Your task to perform on an android device: turn pop-ups on in chrome Image 0: 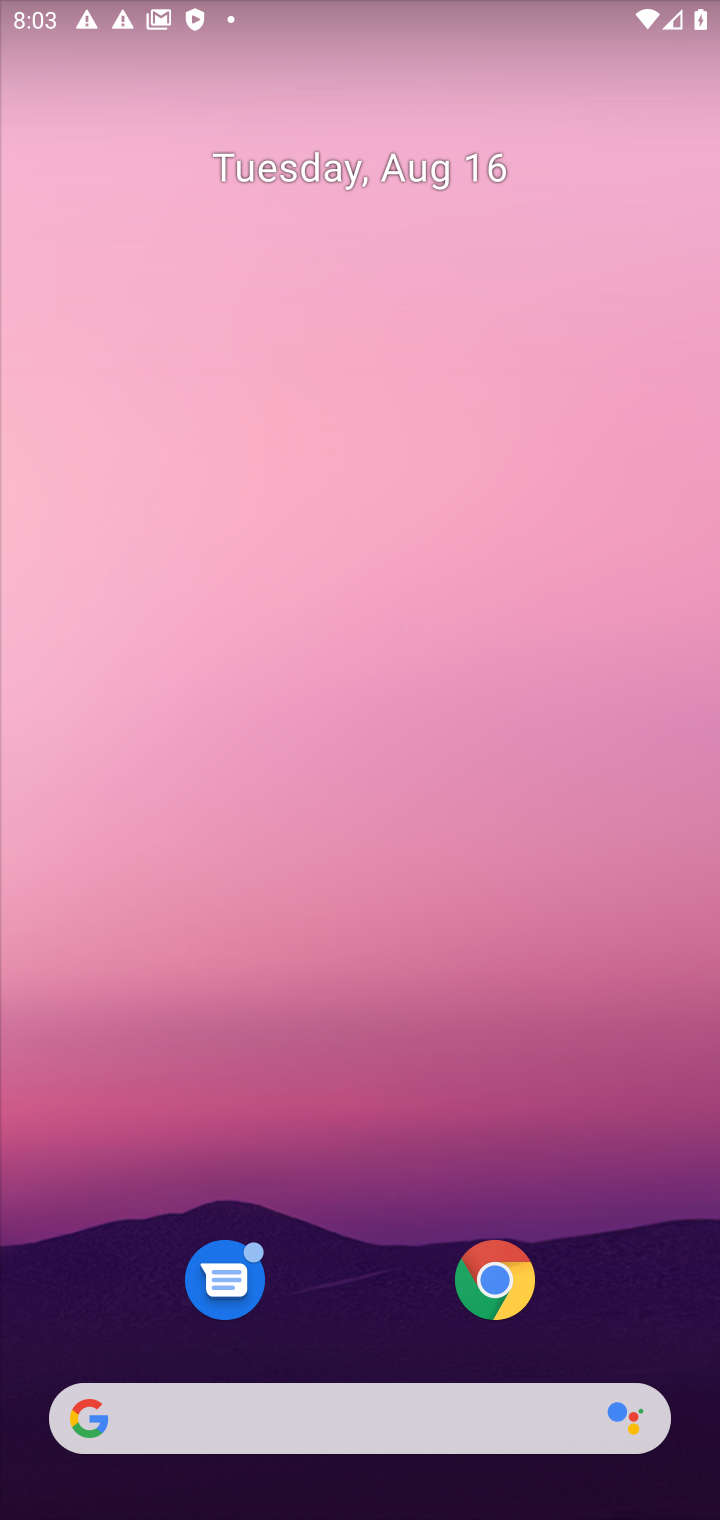
Step 0: click (512, 1273)
Your task to perform on an android device: turn pop-ups on in chrome Image 1: 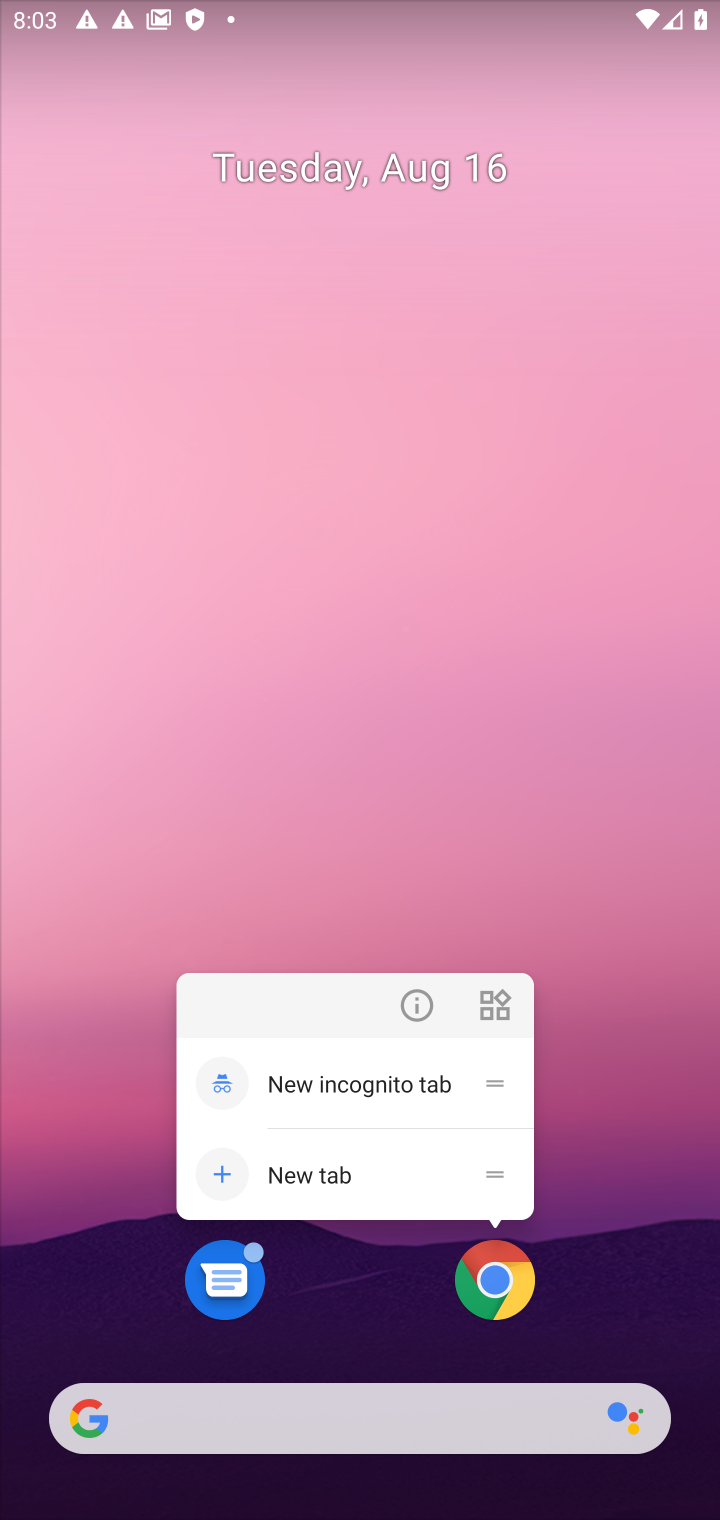
Step 1: click (486, 1267)
Your task to perform on an android device: turn pop-ups on in chrome Image 2: 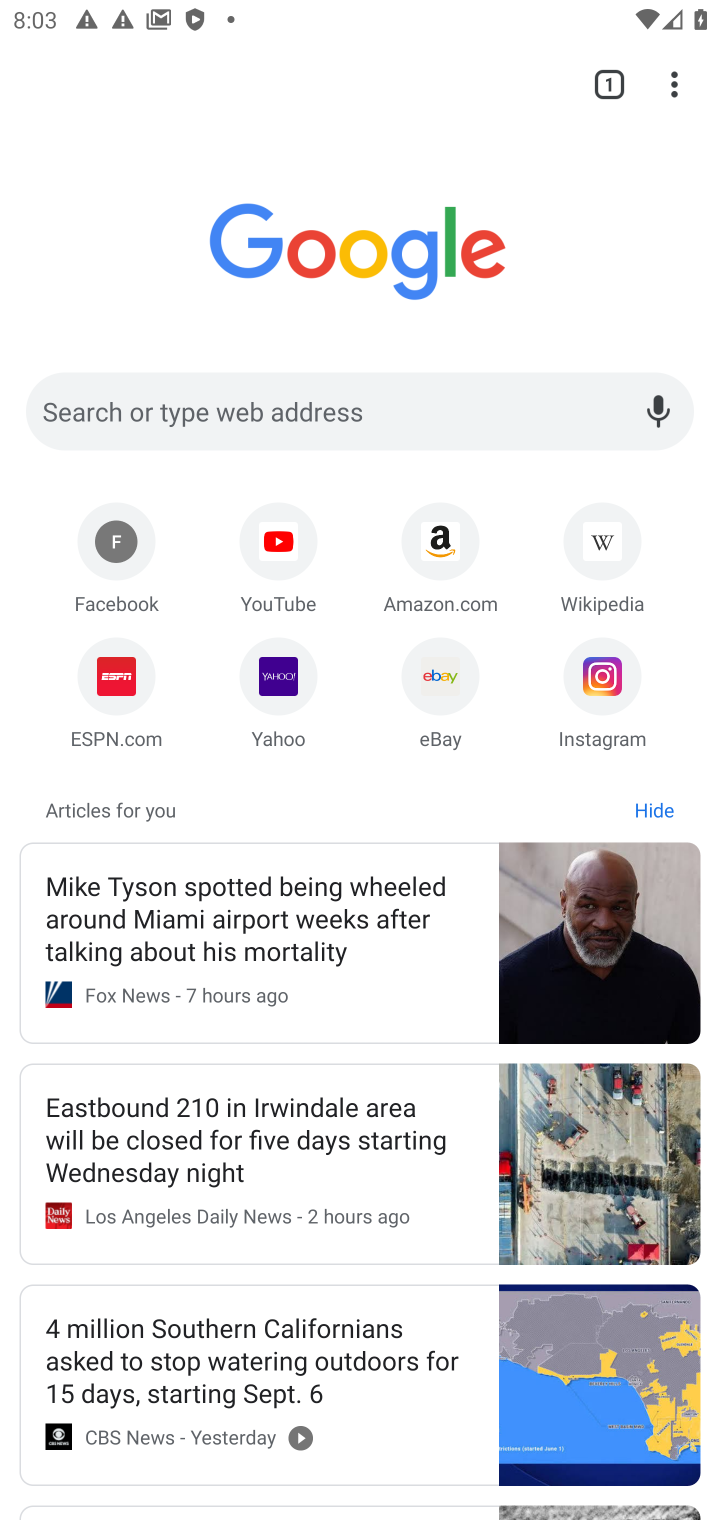
Step 2: click (678, 77)
Your task to perform on an android device: turn pop-ups on in chrome Image 3: 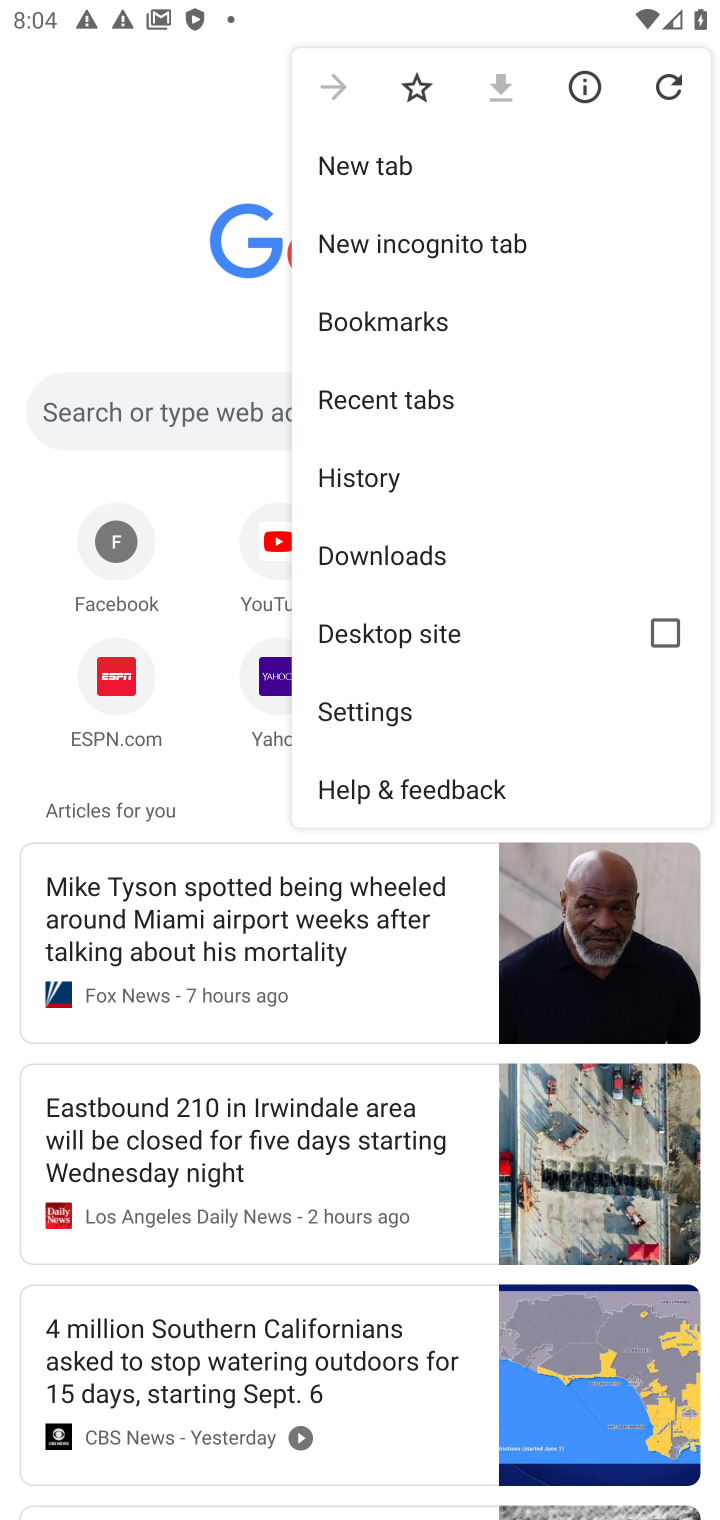
Step 3: click (340, 714)
Your task to perform on an android device: turn pop-ups on in chrome Image 4: 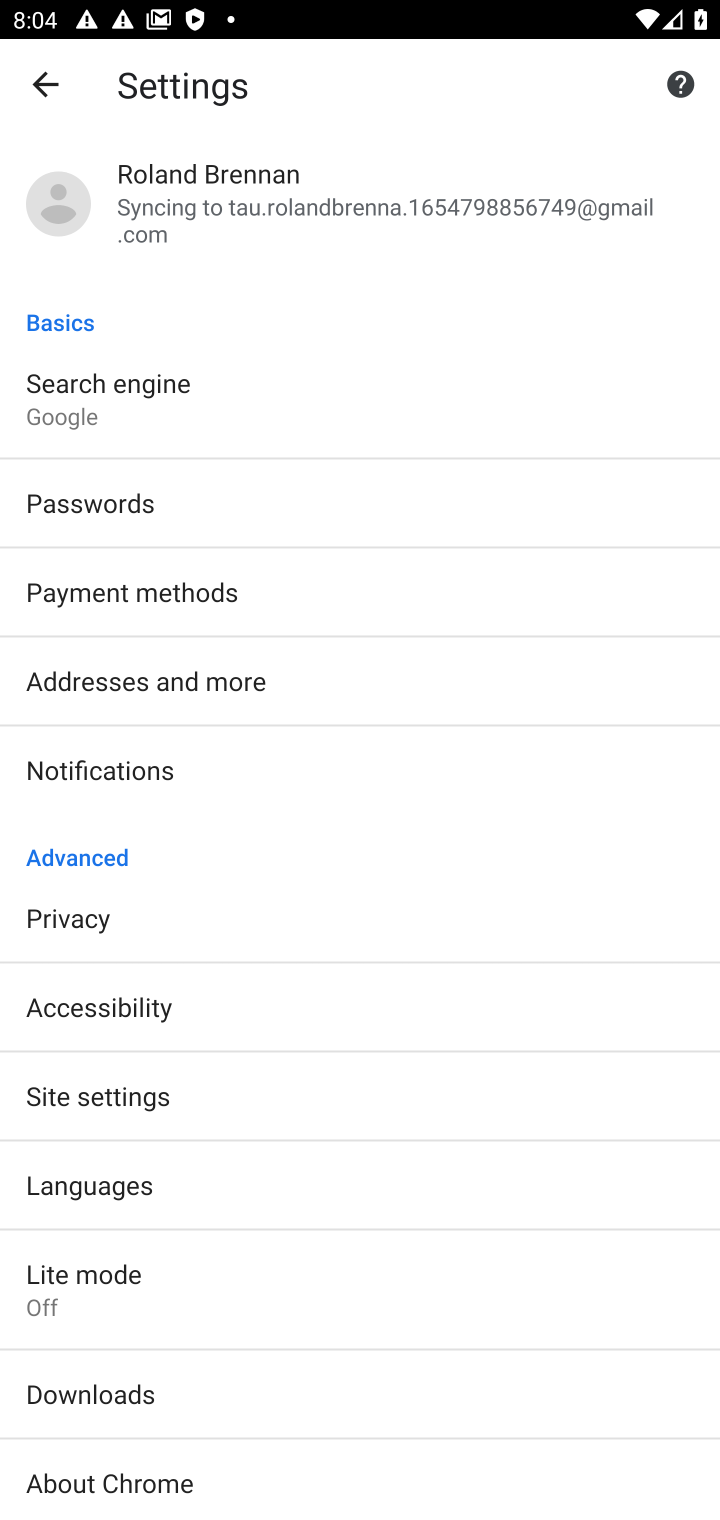
Step 4: click (119, 1092)
Your task to perform on an android device: turn pop-ups on in chrome Image 5: 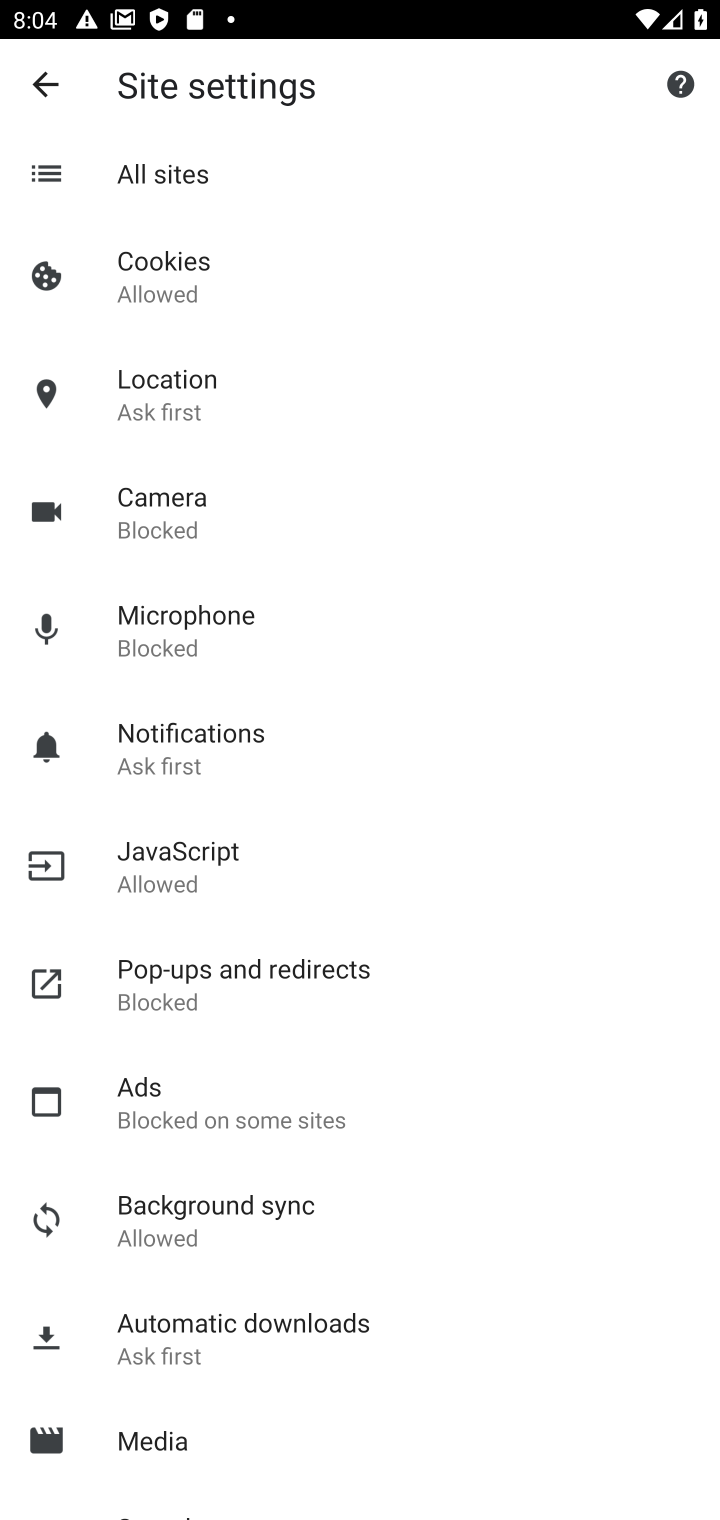
Step 5: click (214, 990)
Your task to perform on an android device: turn pop-ups on in chrome Image 6: 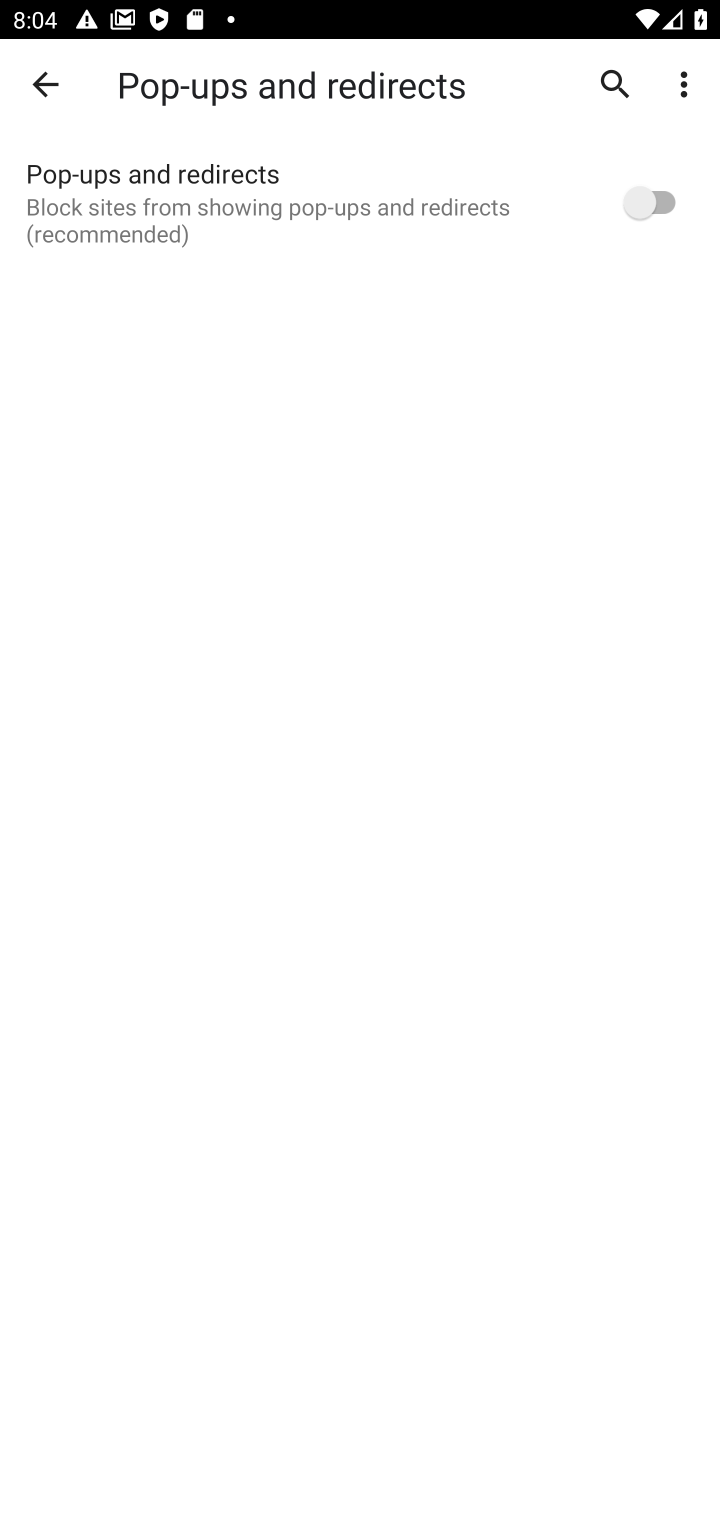
Step 6: click (607, 199)
Your task to perform on an android device: turn pop-ups on in chrome Image 7: 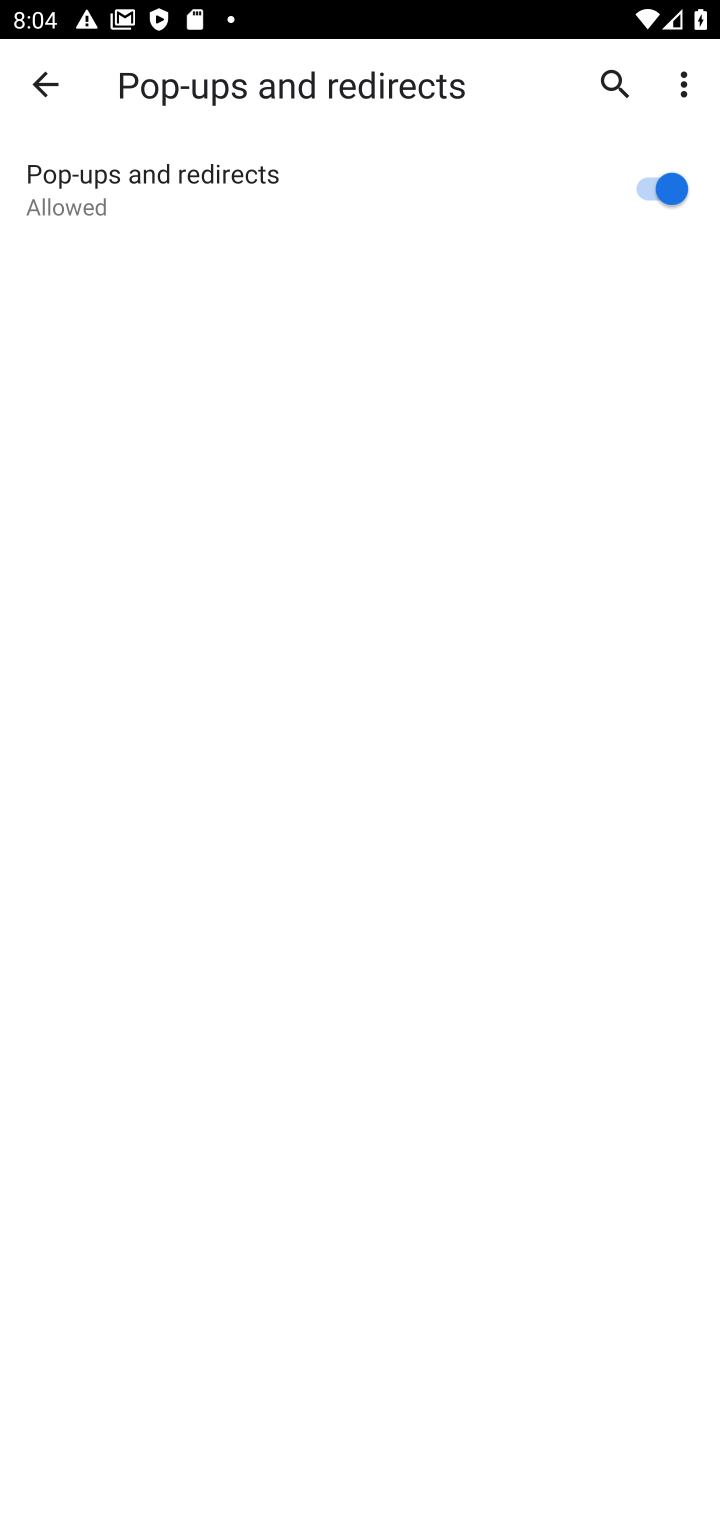
Step 7: task complete